Your task to perform on an android device: check android version Image 0: 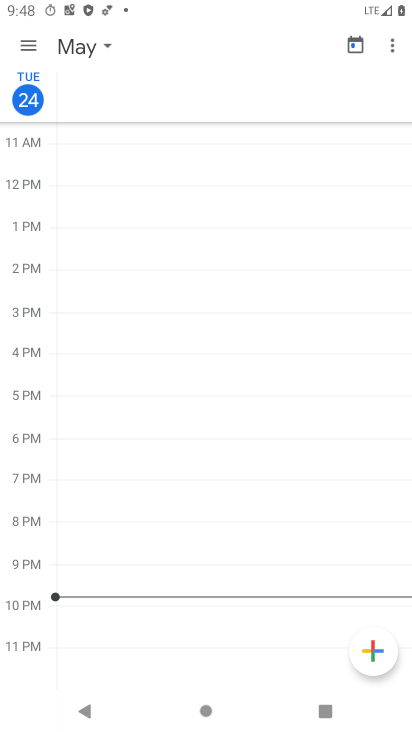
Step 0: press back button
Your task to perform on an android device: check android version Image 1: 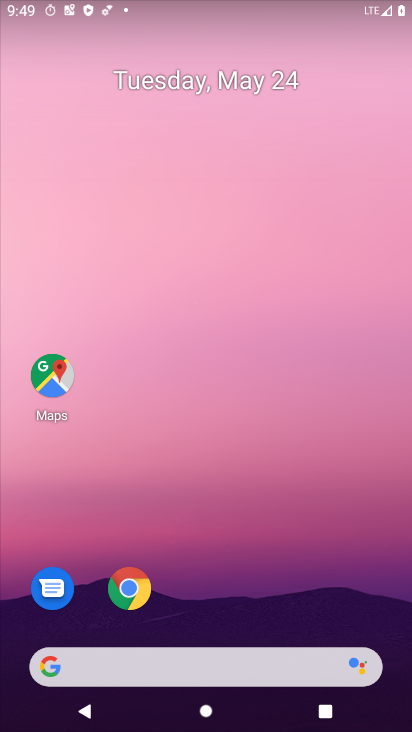
Step 1: drag from (191, 597) to (301, 116)
Your task to perform on an android device: check android version Image 2: 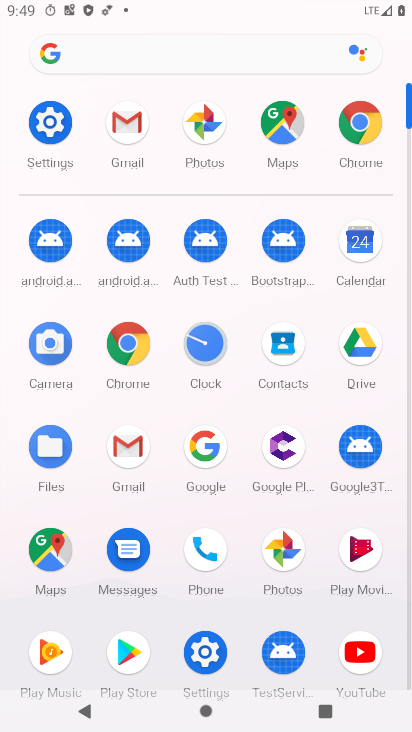
Step 2: click (40, 116)
Your task to perform on an android device: check android version Image 3: 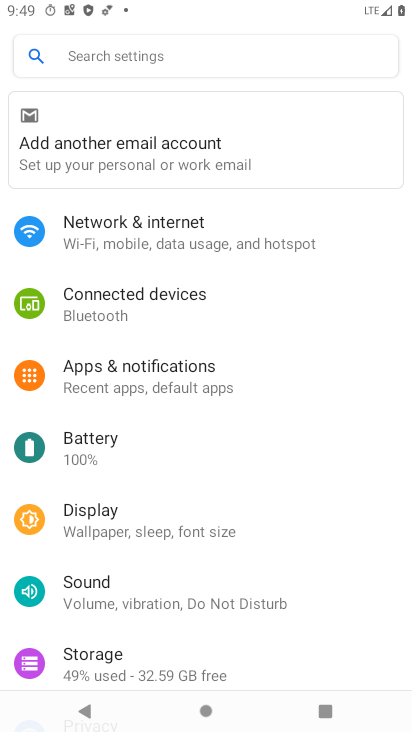
Step 3: drag from (127, 651) to (209, 142)
Your task to perform on an android device: check android version Image 4: 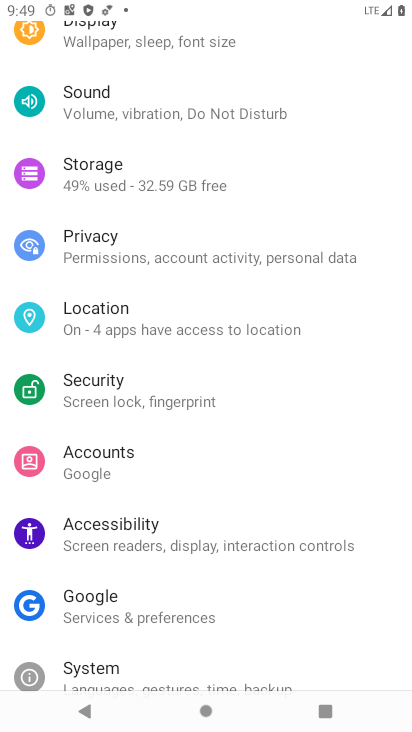
Step 4: drag from (124, 587) to (238, 4)
Your task to perform on an android device: check android version Image 5: 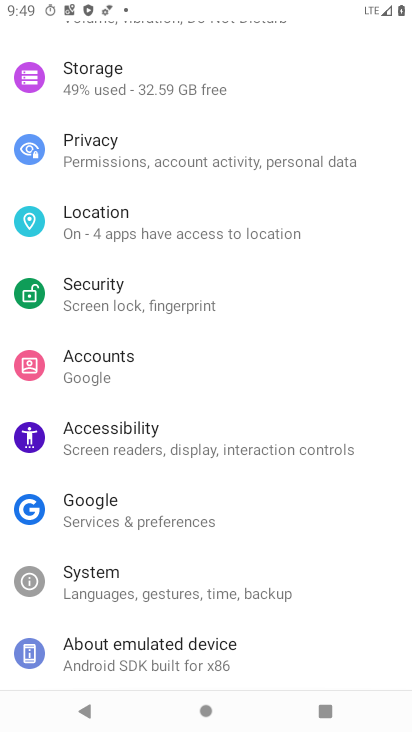
Step 5: click (173, 669)
Your task to perform on an android device: check android version Image 6: 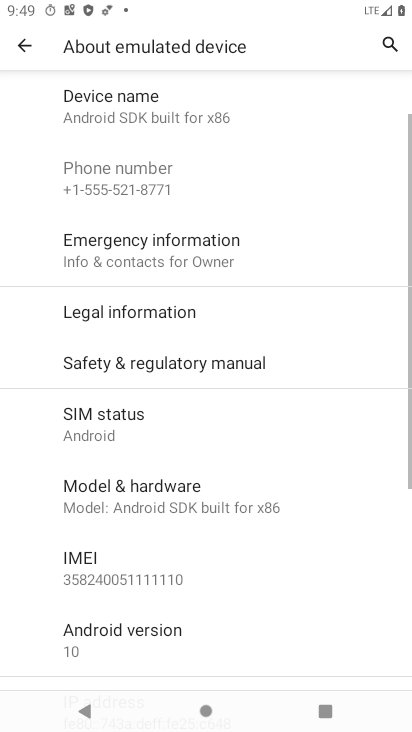
Step 6: click (104, 630)
Your task to perform on an android device: check android version Image 7: 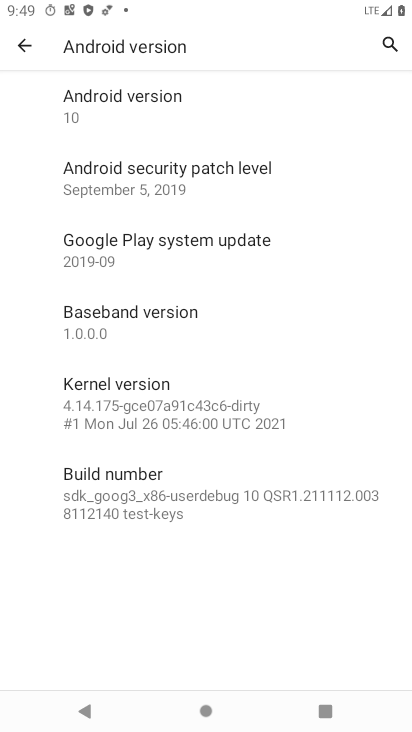
Step 7: task complete